Your task to perform on an android device: Open calendar and show me the fourth week of next month Image 0: 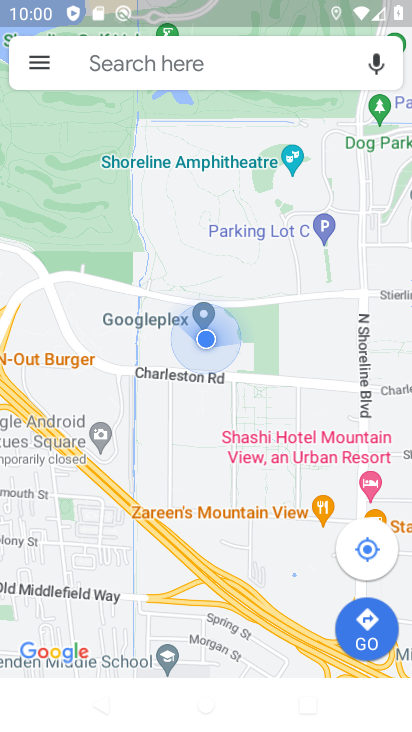
Step 0: press home button
Your task to perform on an android device: Open calendar and show me the fourth week of next month Image 1: 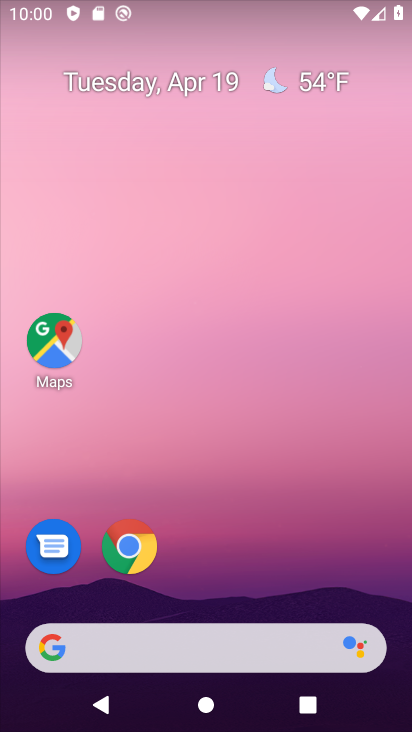
Step 1: drag from (227, 572) to (109, 82)
Your task to perform on an android device: Open calendar and show me the fourth week of next month Image 2: 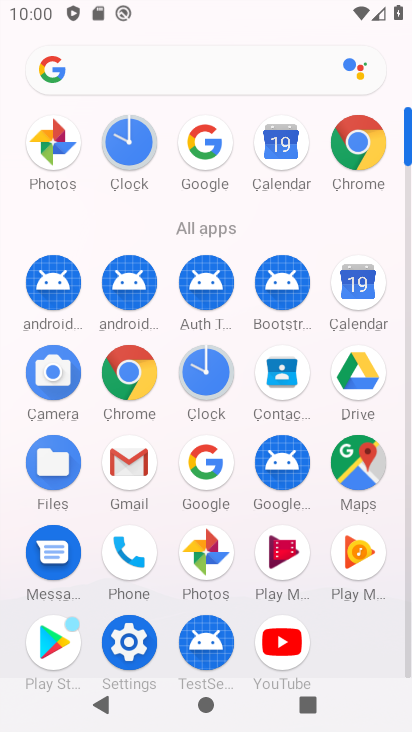
Step 2: click (331, 293)
Your task to perform on an android device: Open calendar and show me the fourth week of next month Image 3: 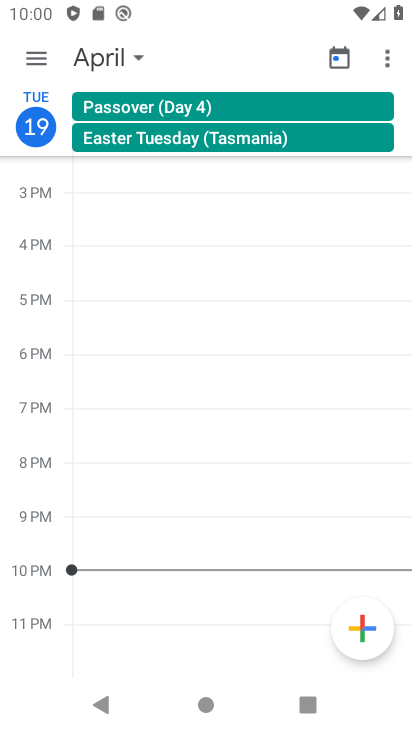
Step 3: click (111, 45)
Your task to perform on an android device: Open calendar and show me the fourth week of next month Image 4: 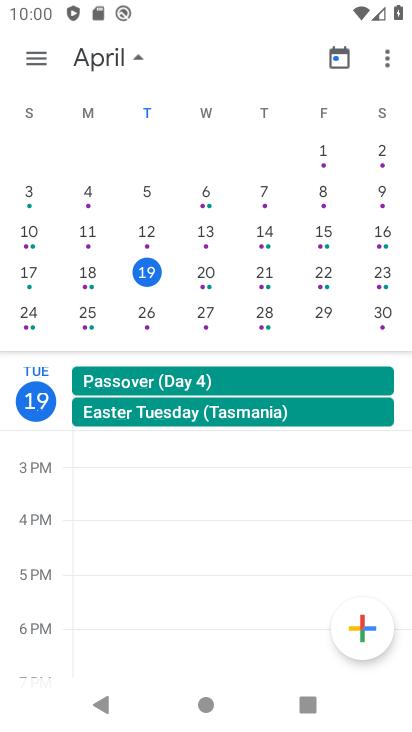
Step 4: drag from (87, 217) to (1, 215)
Your task to perform on an android device: Open calendar and show me the fourth week of next month Image 5: 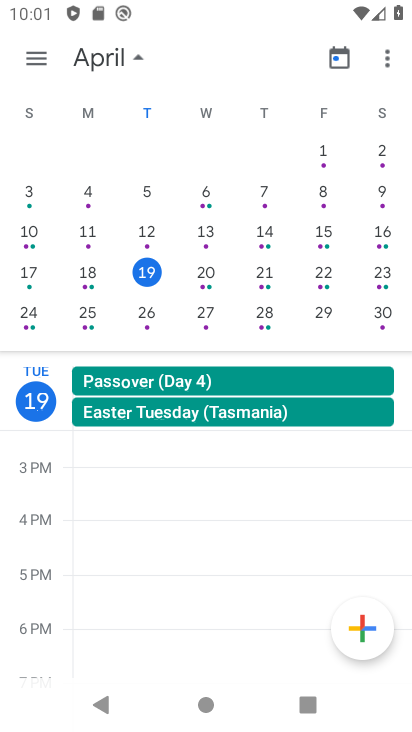
Step 5: drag from (387, 194) to (1, 227)
Your task to perform on an android device: Open calendar and show me the fourth week of next month Image 6: 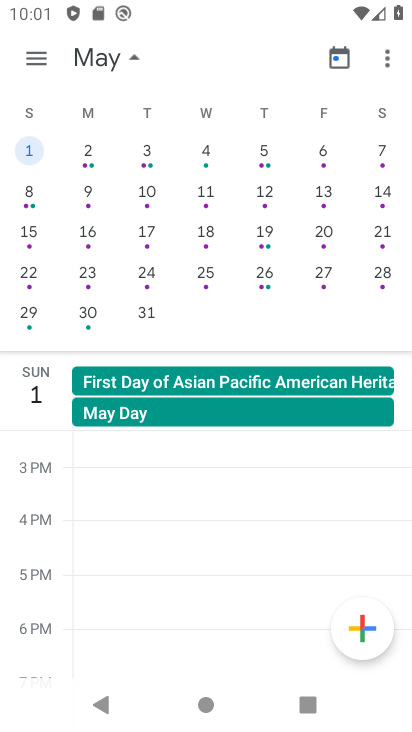
Step 6: click (31, 269)
Your task to perform on an android device: Open calendar and show me the fourth week of next month Image 7: 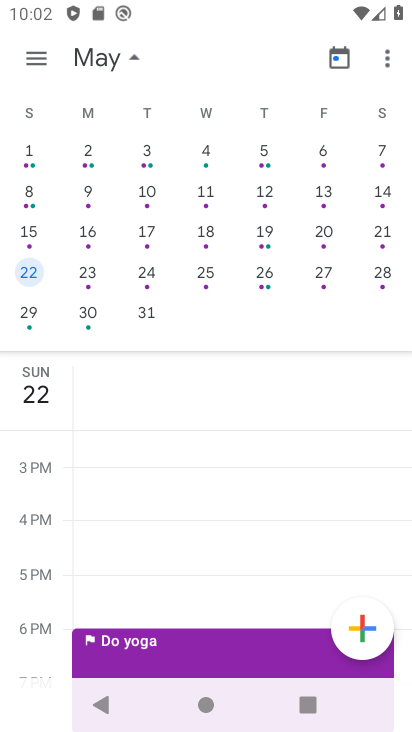
Step 7: task complete